Your task to perform on an android device: turn off javascript in the chrome app Image 0: 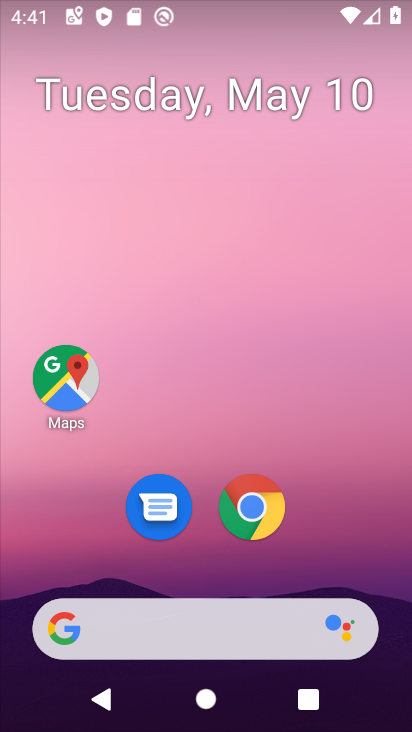
Step 0: click (259, 509)
Your task to perform on an android device: turn off javascript in the chrome app Image 1: 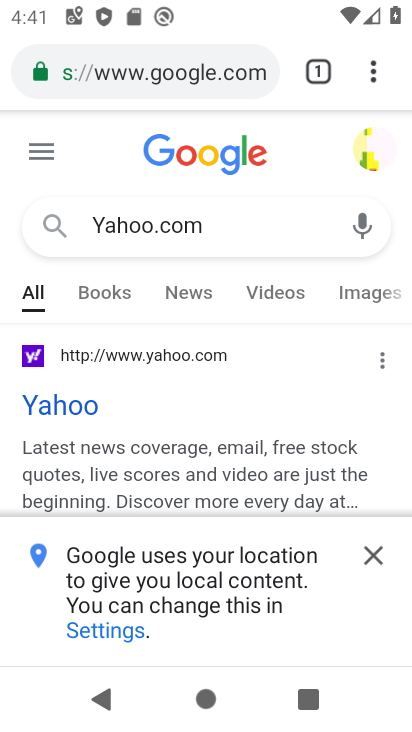
Step 1: click (377, 557)
Your task to perform on an android device: turn off javascript in the chrome app Image 2: 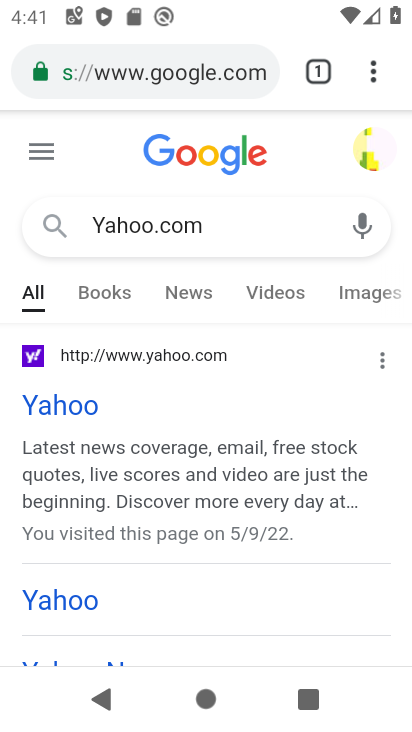
Step 2: click (373, 86)
Your task to perform on an android device: turn off javascript in the chrome app Image 3: 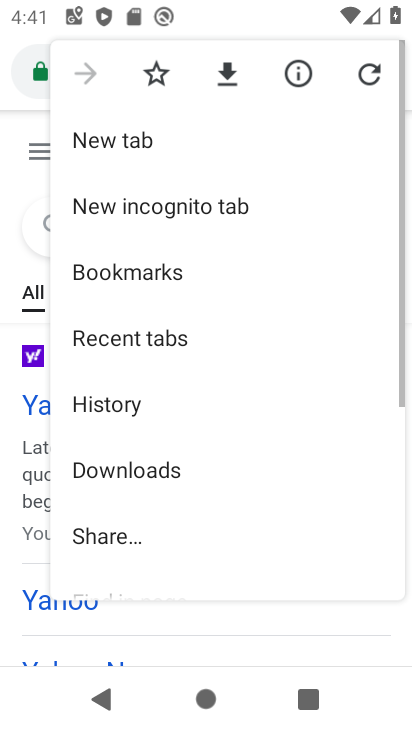
Step 3: drag from (157, 548) to (200, 238)
Your task to perform on an android device: turn off javascript in the chrome app Image 4: 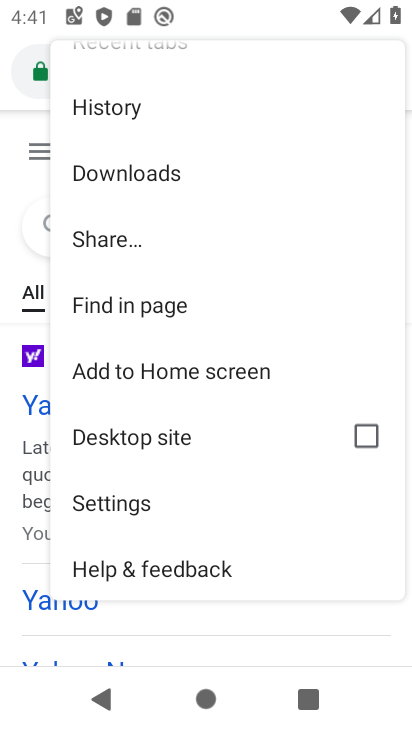
Step 4: click (128, 503)
Your task to perform on an android device: turn off javascript in the chrome app Image 5: 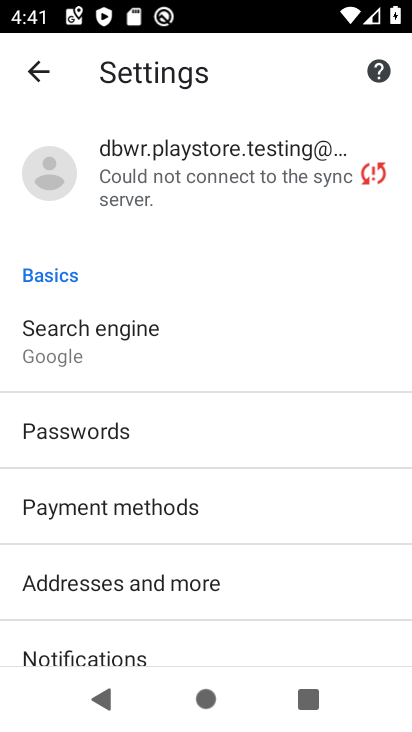
Step 5: drag from (161, 585) to (202, 233)
Your task to perform on an android device: turn off javascript in the chrome app Image 6: 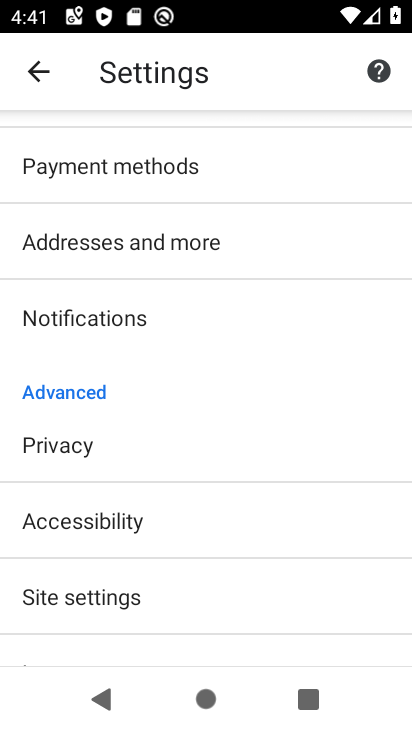
Step 6: drag from (176, 616) to (204, 329)
Your task to perform on an android device: turn off javascript in the chrome app Image 7: 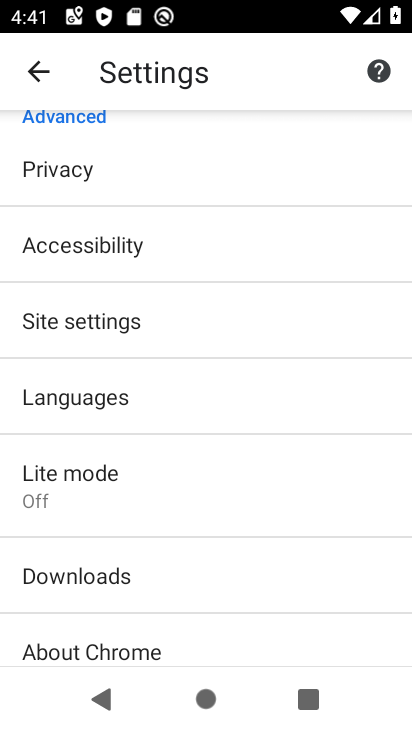
Step 7: click (104, 328)
Your task to perform on an android device: turn off javascript in the chrome app Image 8: 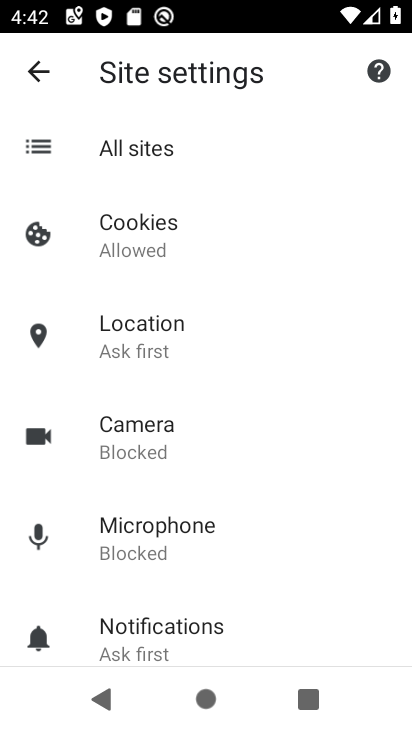
Step 8: drag from (193, 586) to (221, 228)
Your task to perform on an android device: turn off javascript in the chrome app Image 9: 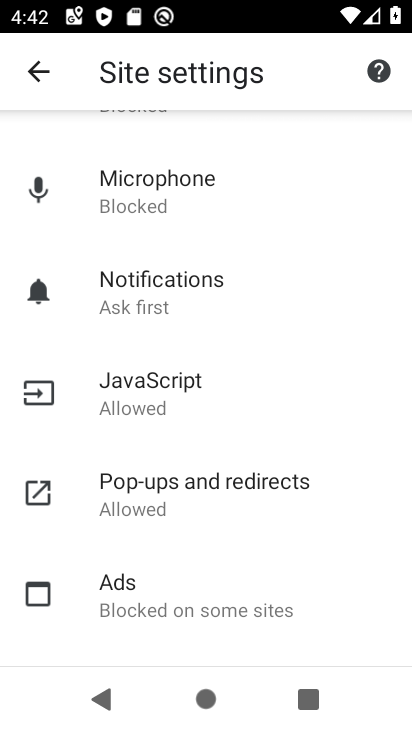
Step 9: click (163, 410)
Your task to perform on an android device: turn off javascript in the chrome app Image 10: 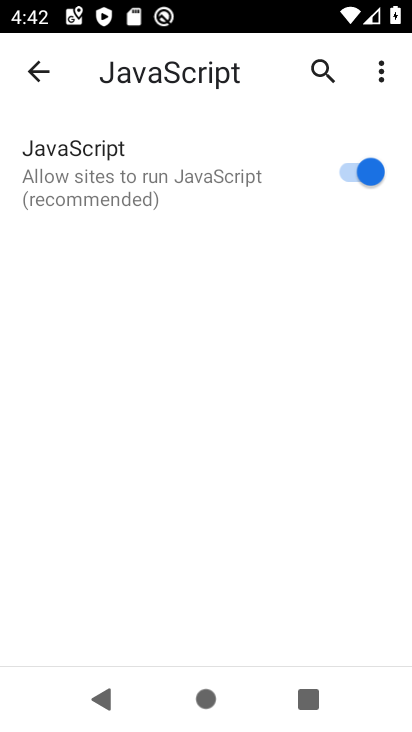
Step 10: click (334, 166)
Your task to perform on an android device: turn off javascript in the chrome app Image 11: 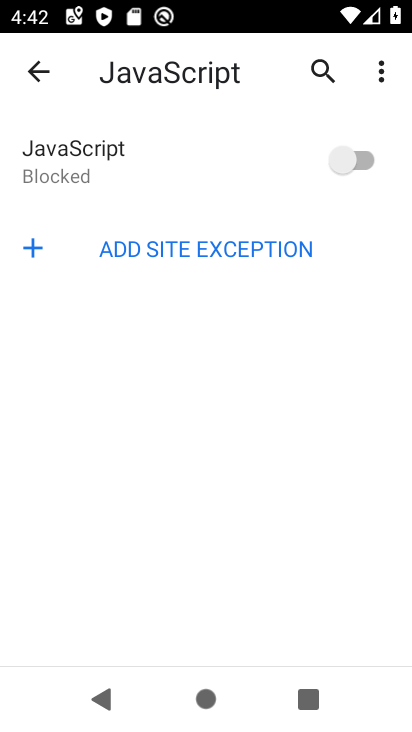
Step 11: task complete